Your task to perform on an android device: Show me popular games on the Play Store Image 0: 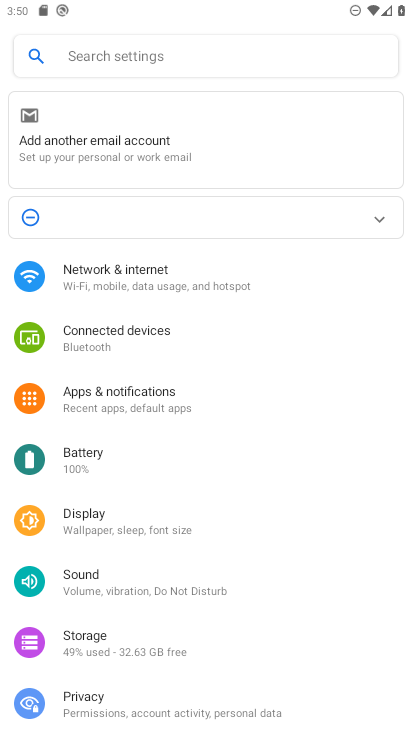
Step 0: press home button
Your task to perform on an android device: Show me popular games on the Play Store Image 1: 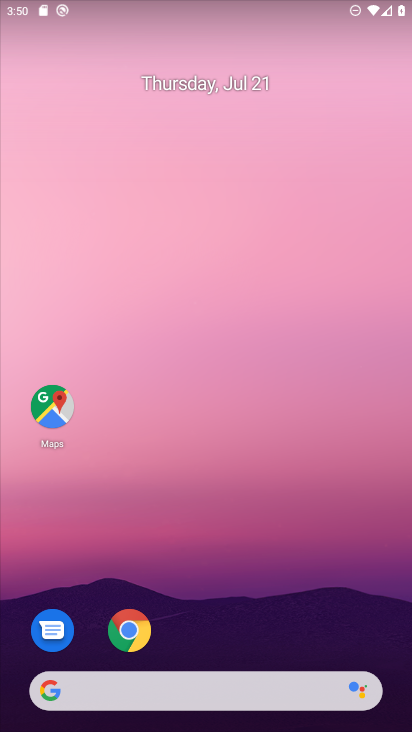
Step 1: drag from (191, 652) to (358, 491)
Your task to perform on an android device: Show me popular games on the Play Store Image 2: 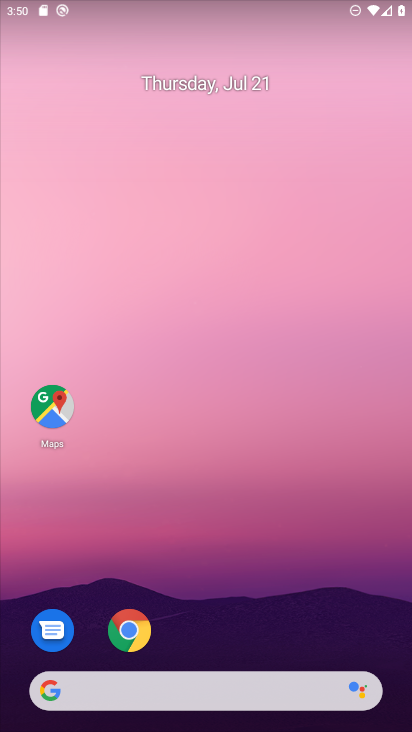
Step 2: drag from (231, 660) to (214, 157)
Your task to perform on an android device: Show me popular games on the Play Store Image 3: 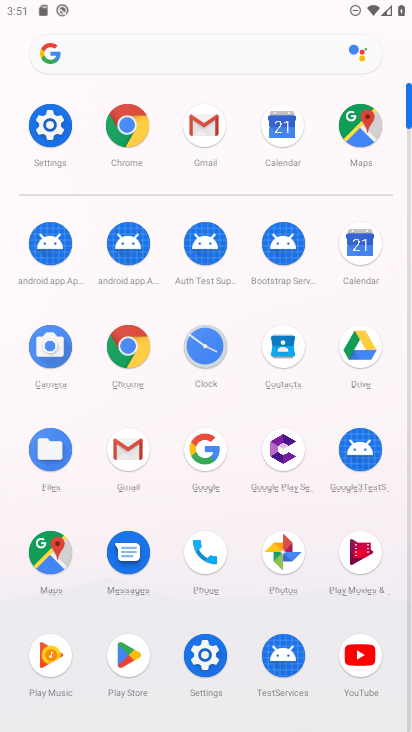
Step 3: click (128, 647)
Your task to perform on an android device: Show me popular games on the Play Store Image 4: 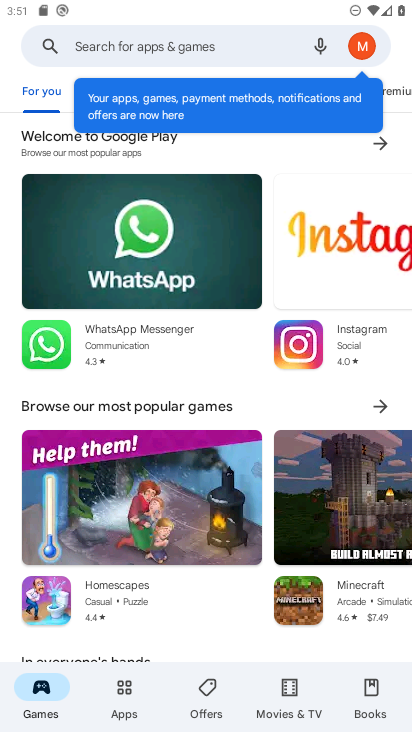
Step 4: click (393, 405)
Your task to perform on an android device: Show me popular games on the Play Store Image 5: 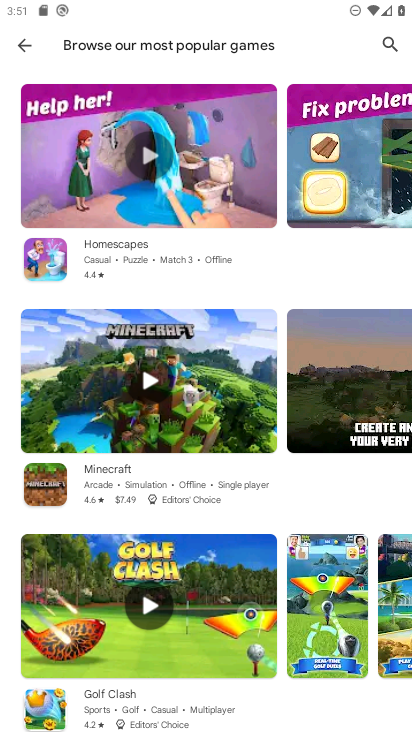
Step 5: task complete